Your task to perform on an android device: What's the weather? Image 0: 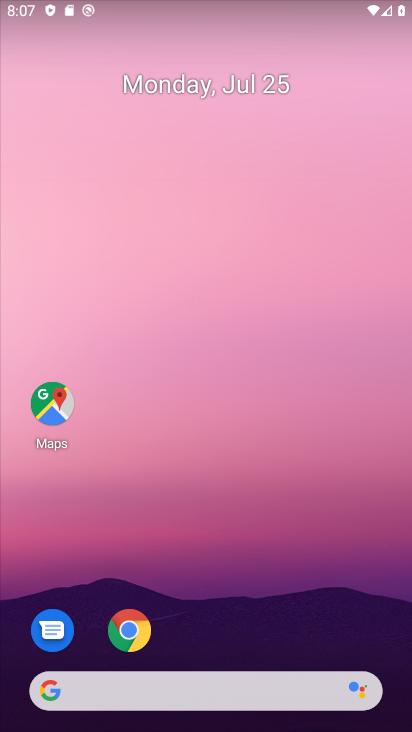
Step 0: click (107, 687)
Your task to perform on an android device: What's the weather? Image 1: 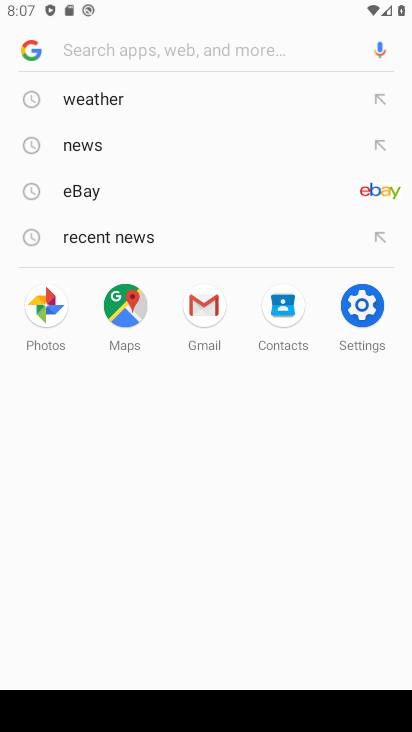
Step 1: click (108, 95)
Your task to perform on an android device: What's the weather? Image 2: 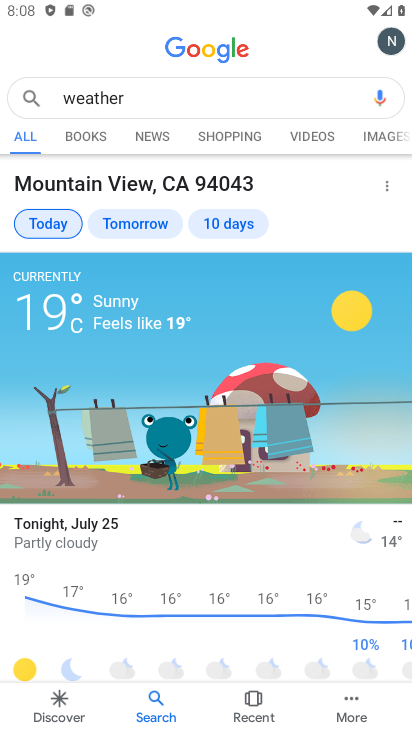
Step 2: task complete